Your task to perform on an android device: check google app version Image 0: 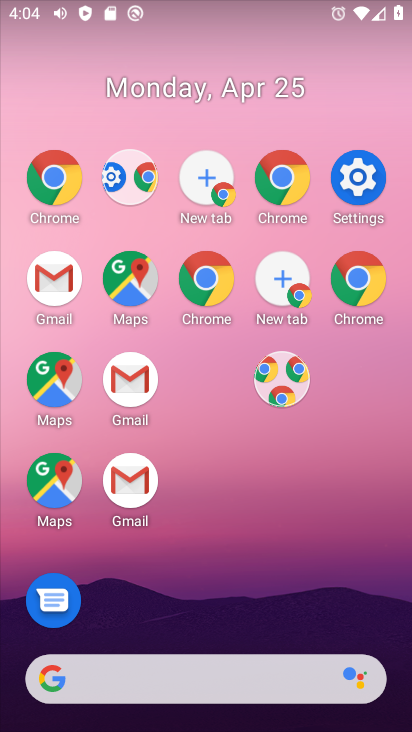
Step 0: drag from (245, 677) to (215, 44)
Your task to perform on an android device: check google app version Image 1: 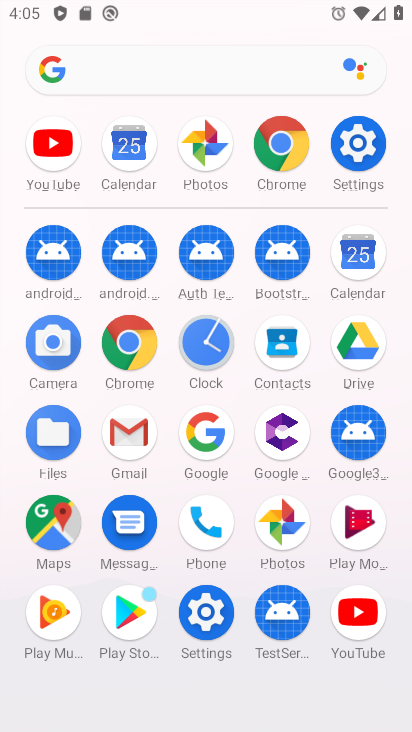
Step 1: click (207, 445)
Your task to perform on an android device: check google app version Image 2: 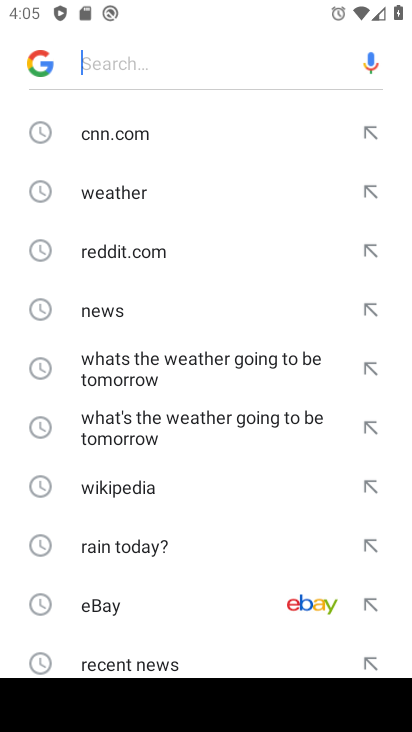
Step 2: press home button
Your task to perform on an android device: check google app version Image 3: 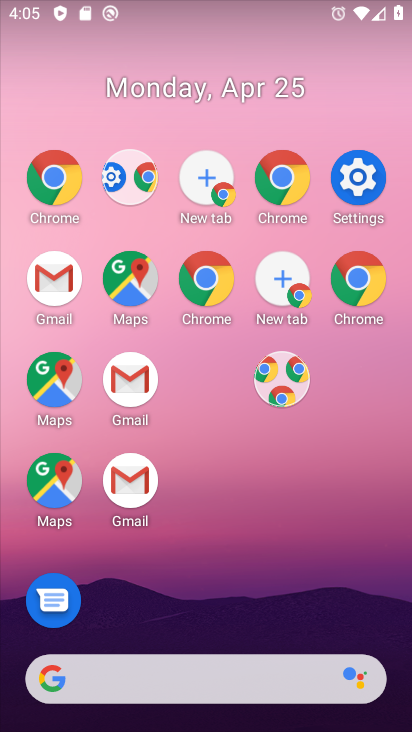
Step 3: drag from (240, 535) to (170, 35)
Your task to perform on an android device: check google app version Image 4: 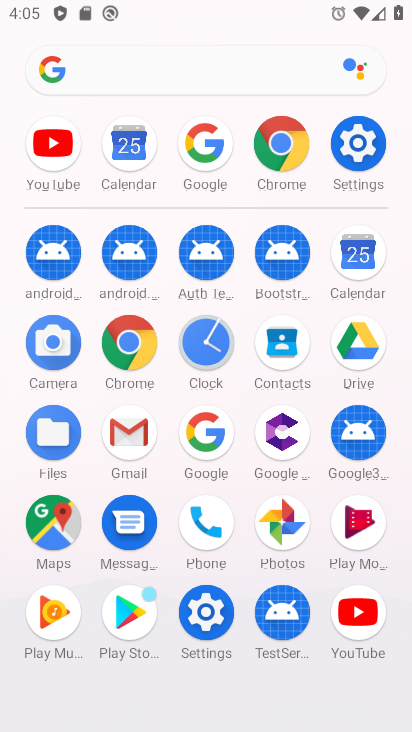
Step 4: click (201, 434)
Your task to perform on an android device: check google app version Image 5: 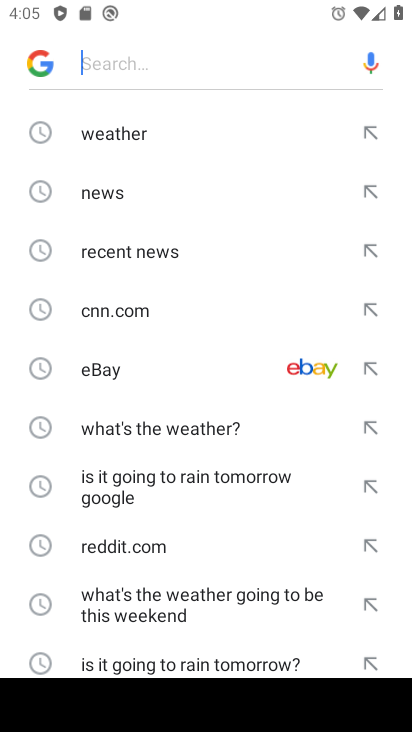
Step 5: press home button
Your task to perform on an android device: check google app version Image 6: 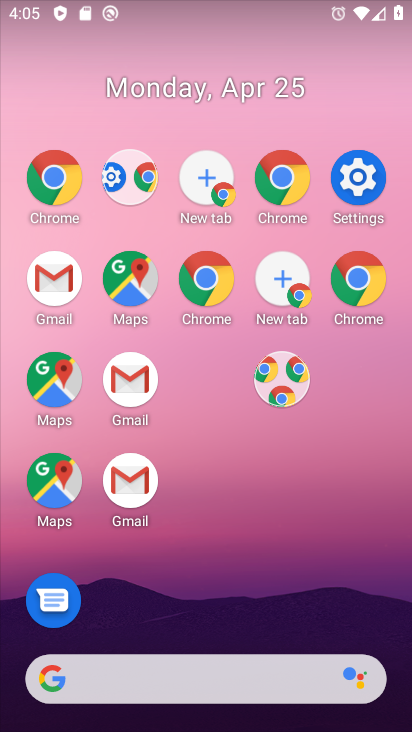
Step 6: drag from (308, 619) to (52, 36)
Your task to perform on an android device: check google app version Image 7: 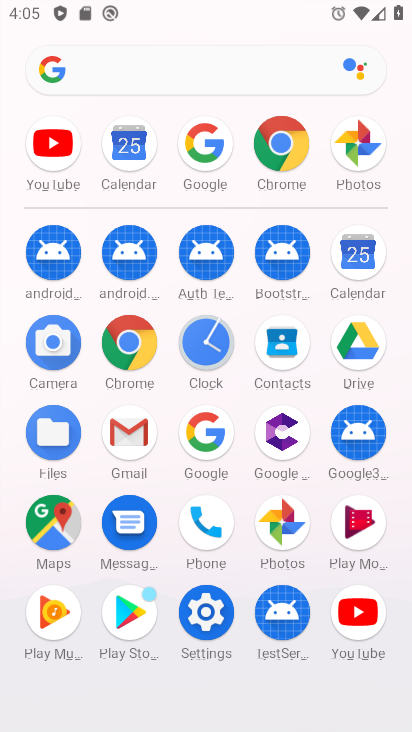
Step 7: drag from (196, 436) to (249, 247)
Your task to perform on an android device: check google app version Image 8: 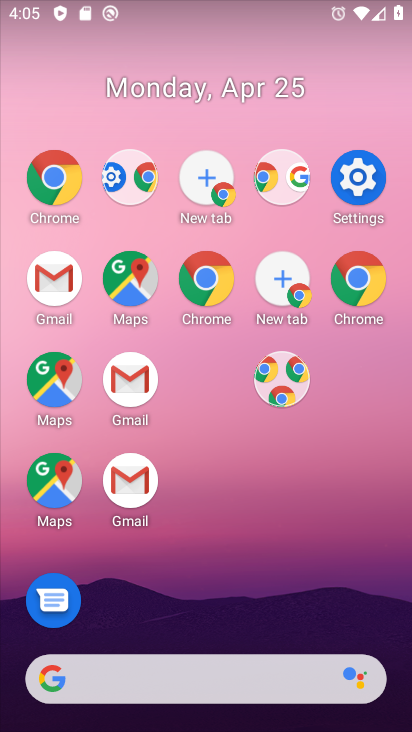
Step 8: press home button
Your task to perform on an android device: check google app version Image 9: 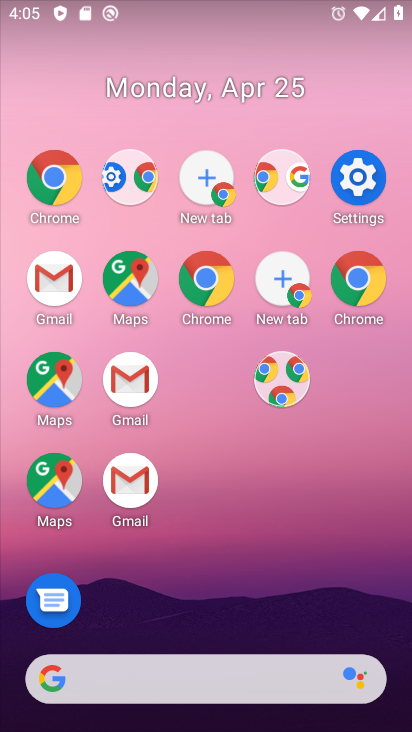
Step 9: drag from (161, 382) to (90, 168)
Your task to perform on an android device: check google app version Image 10: 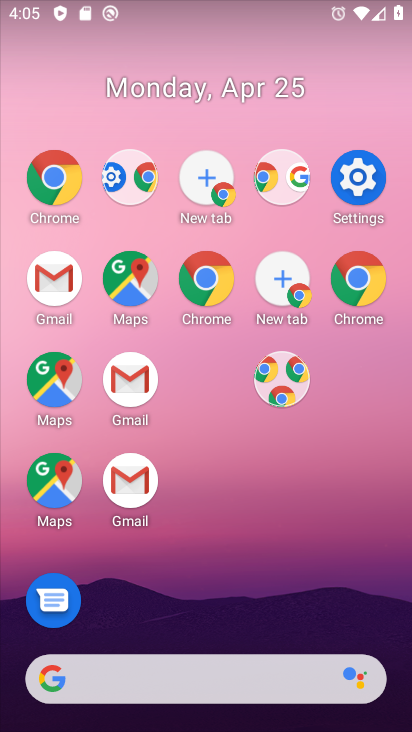
Step 10: drag from (227, 714) to (181, 278)
Your task to perform on an android device: check google app version Image 11: 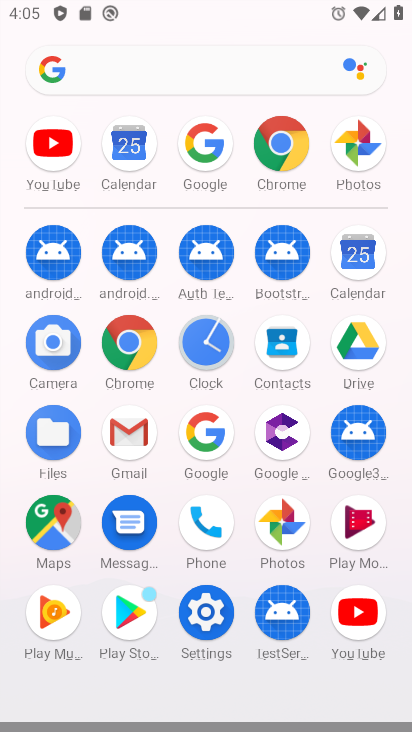
Step 11: drag from (206, 433) to (252, 245)
Your task to perform on an android device: check google app version Image 12: 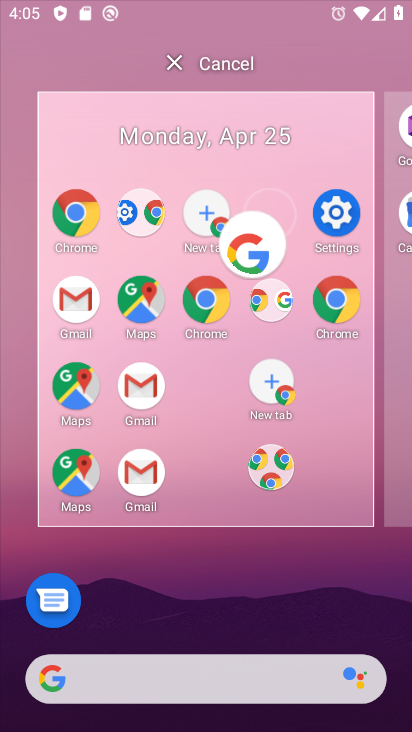
Step 12: click (252, 245)
Your task to perform on an android device: check google app version Image 13: 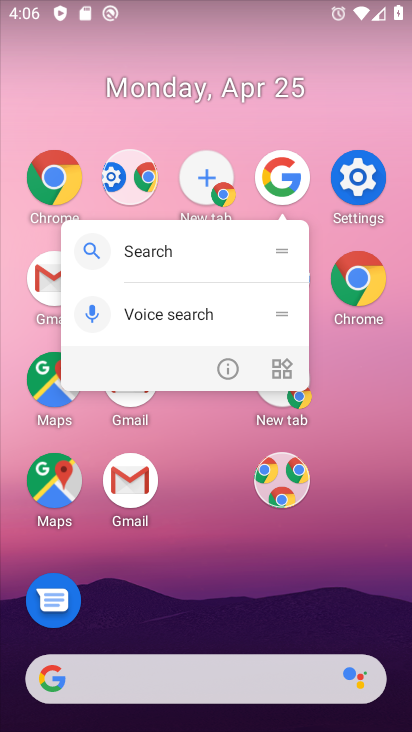
Step 13: click (227, 356)
Your task to perform on an android device: check google app version Image 14: 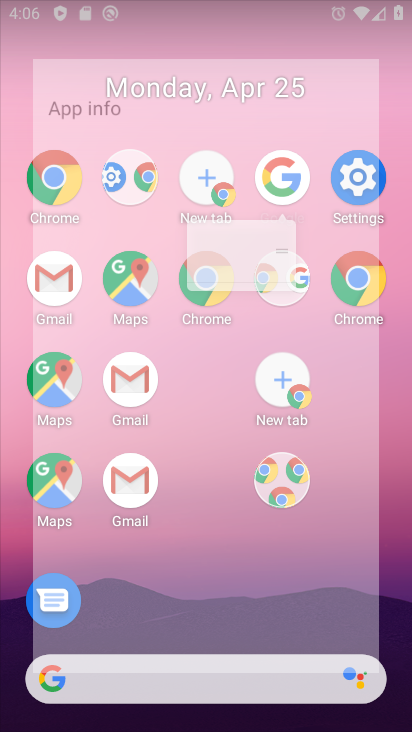
Step 14: click (226, 362)
Your task to perform on an android device: check google app version Image 15: 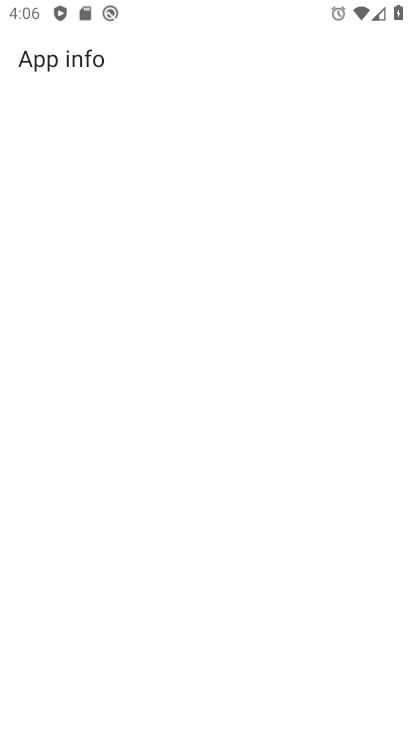
Step 15: click (226, 363)
Your task to perform on an android device: check google app version Image 16: 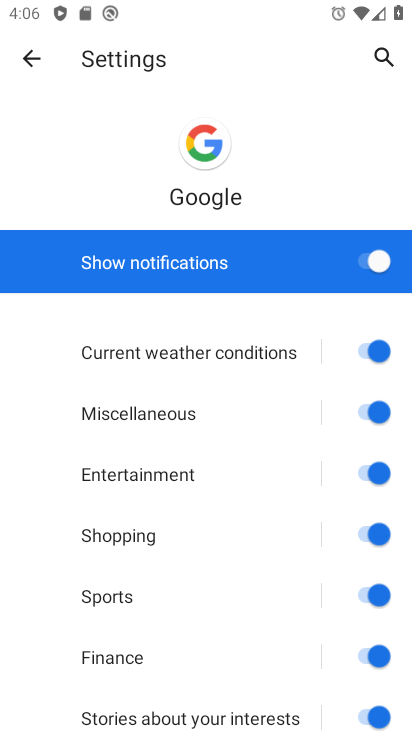
Step 16: click (24, 60)
Your task to perform on an android device: check google app version Image 17: 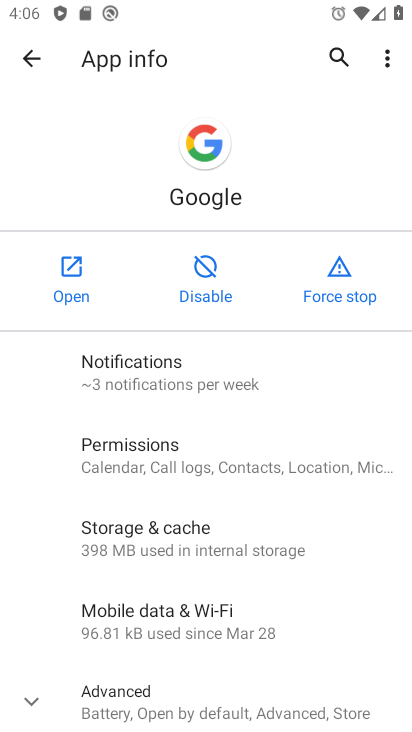
Step 17: drag from (202, 576) to (141, 326)
Your task to perform on an android device: check google app version Image 18: 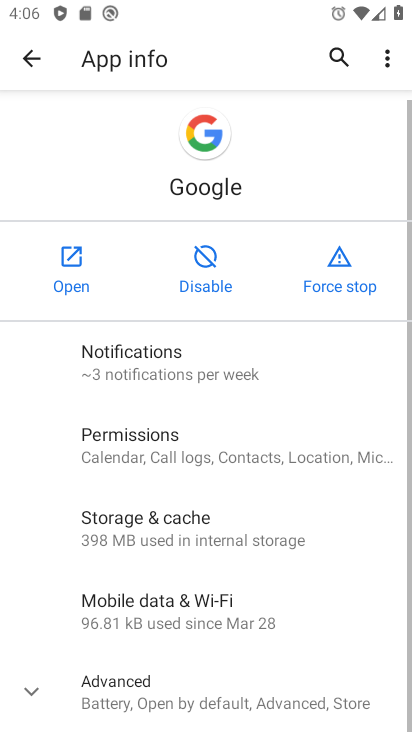
Step 18: drag from (196, 596) to (185, 212)
Your task to perform on an android device: check google app version Image 19: 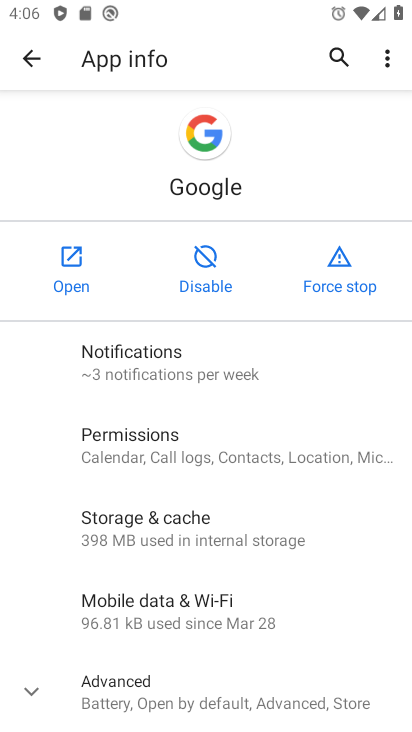
Step 19: click (98, 700)
Your task to perform on an android device: check google app version Image 20: 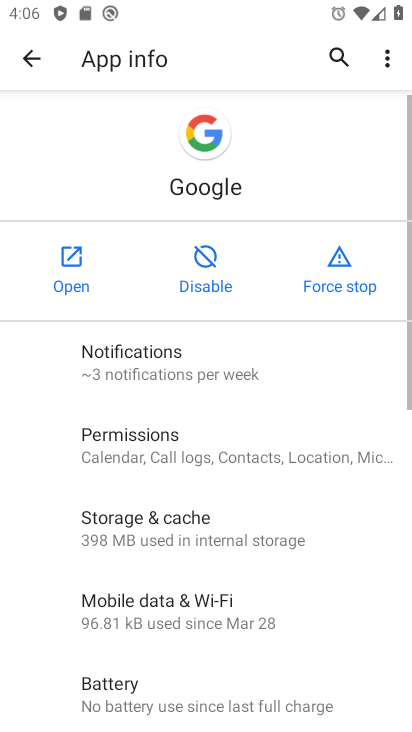
Step 20: drag from (254, 633) to (244, 217)
Your task to perform on an android device: check google app version Image 21: 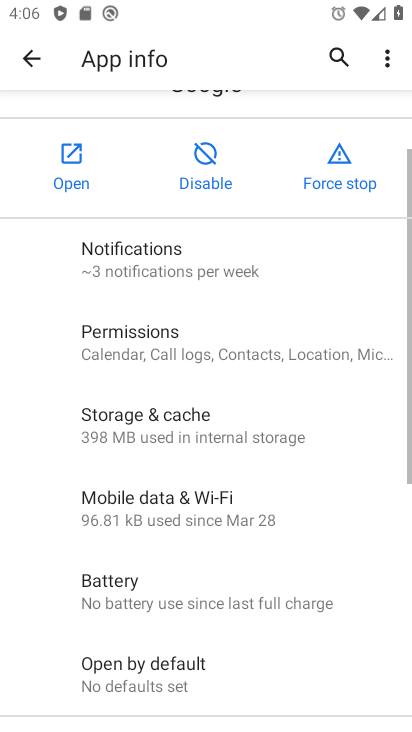
Step 21: drag from (254, 456) to (231, 117)
Your task to perform on an android device: check google app version Image 22: 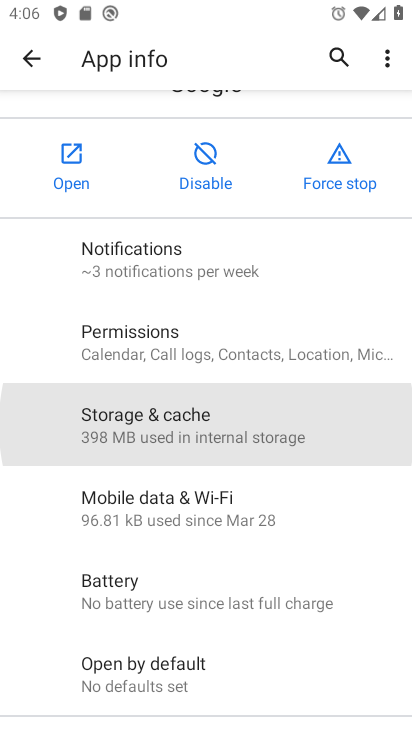
Step 22: drag from (285, 491) to (250, 138)
Your task to perform on an android device: check google app version Image 23: 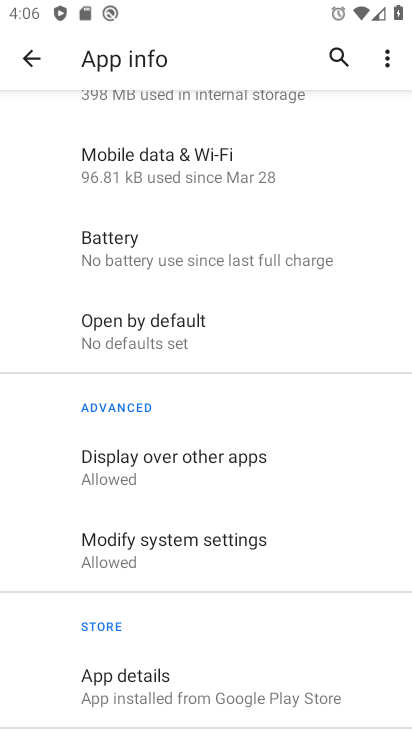
Step 23: click (137, 684)
Your task to perform on an android device: check google app version Image 24: 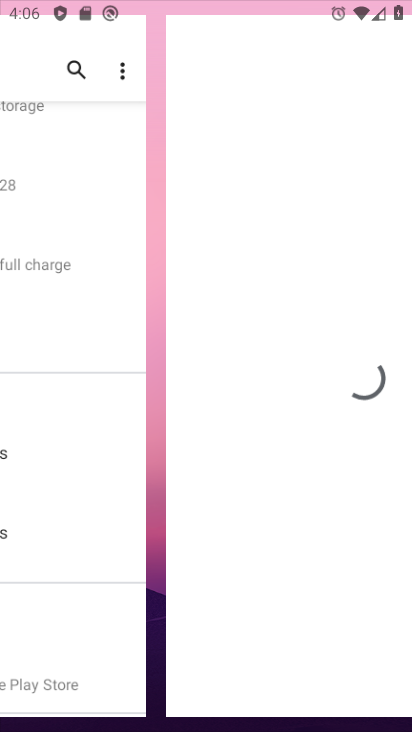
Step 24: task complete